Your task to perform on an android device: toggle improve location accuracy Image 0: 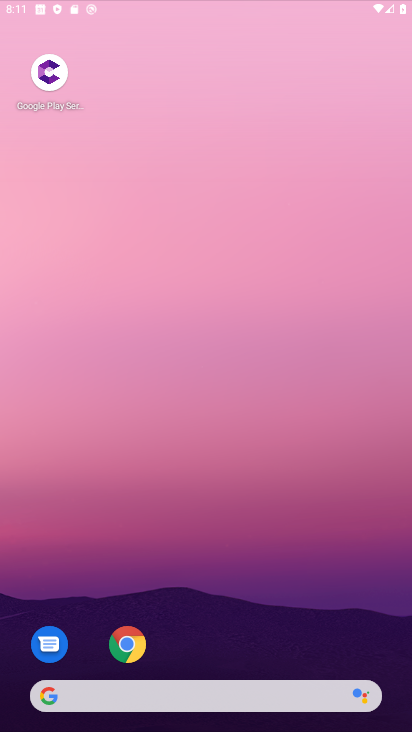
Step 0: drag from (303, 232) to (313, 148)
Your task to perform on an android device: toggle improve location accuracy Image 1: 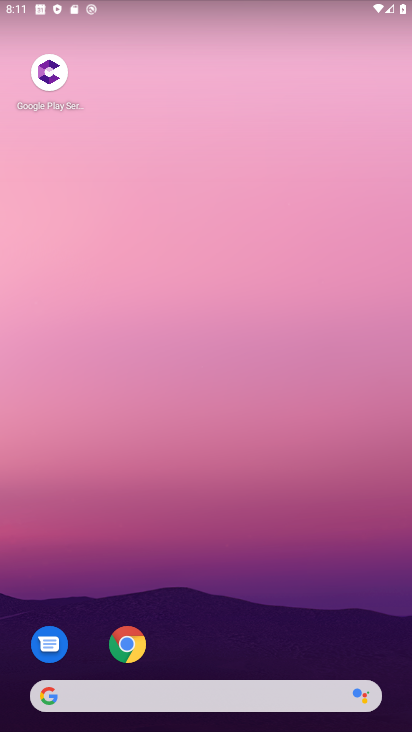
Step 1: drag from (189, 661) to (223, 127)
Your task to perform on an android device: toggle improve location accuracy Image 2: 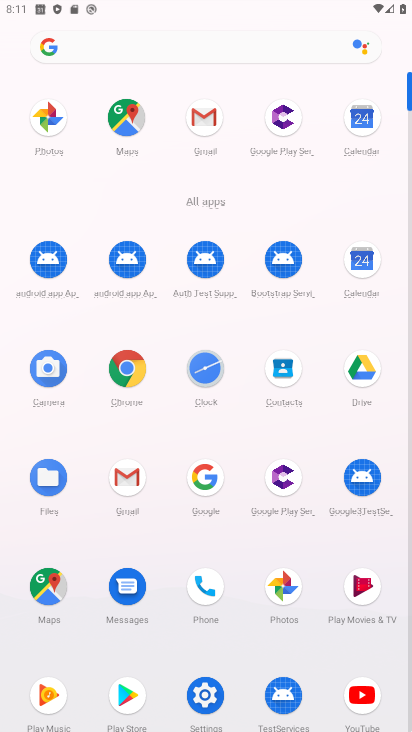
Step 2: click (205, 704)
Your task to perform on an android device: toggle improve location accuracy Image 3: 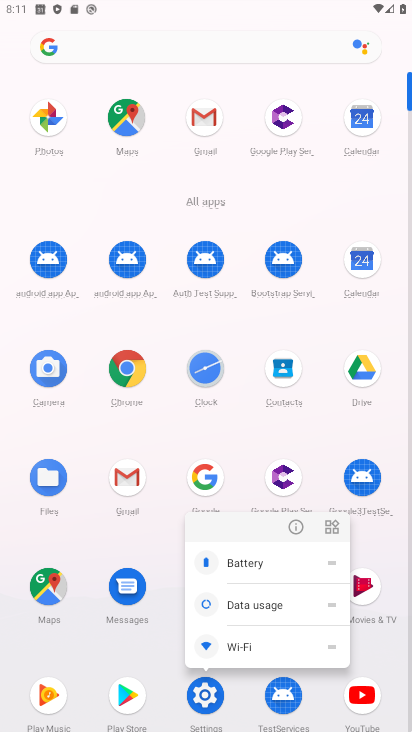
Step 3: click (291, 523)
Your task to perform on an android device: toggle improve location accuracy Image 4: 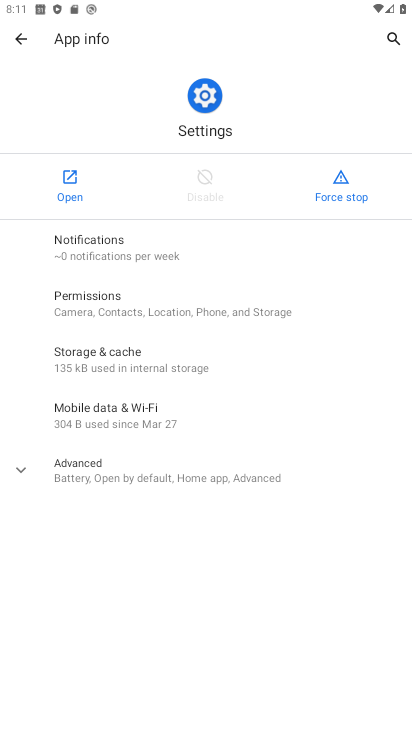
Step 4: click (68, 182)
Your task to perform on an android device: toggle improve location accuracy Image 5: 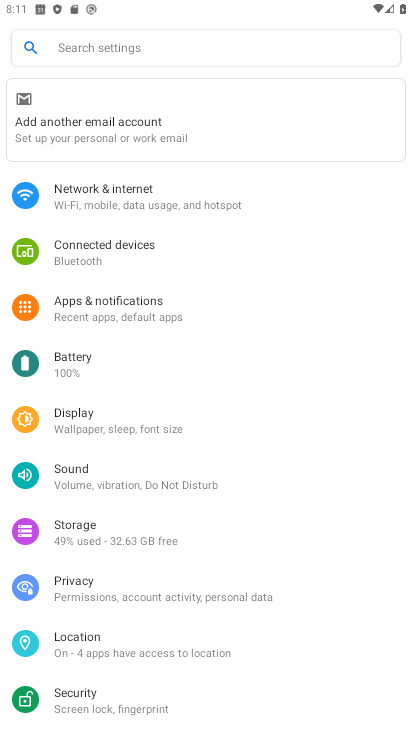
Step 5: click (99, 649)
Your task to perform on an android device: toggle improve location accuracy Image 6: 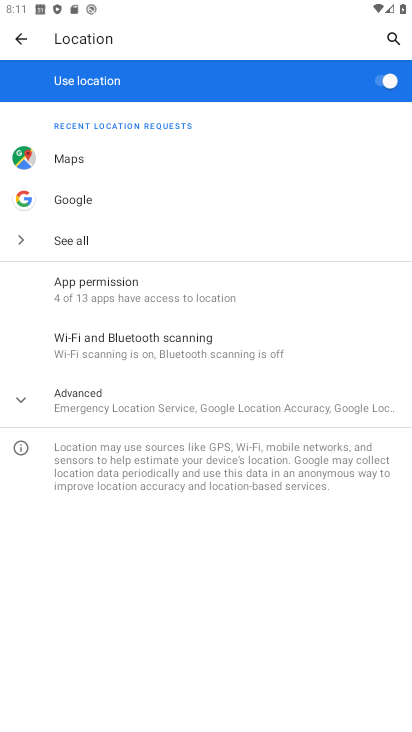
Step 6: click (142, 415)
Your task to perform on an android device: toggle improve location accuracy Image 7: 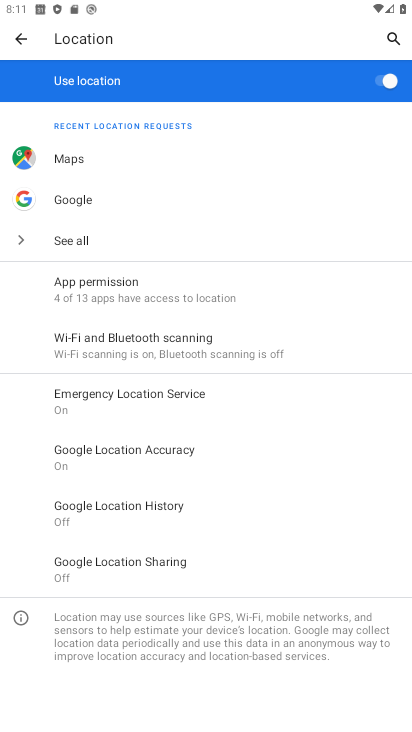
Step 7: click (199, 466)
Your task to perform on an android device: toggle improve location accuracy Image 8: 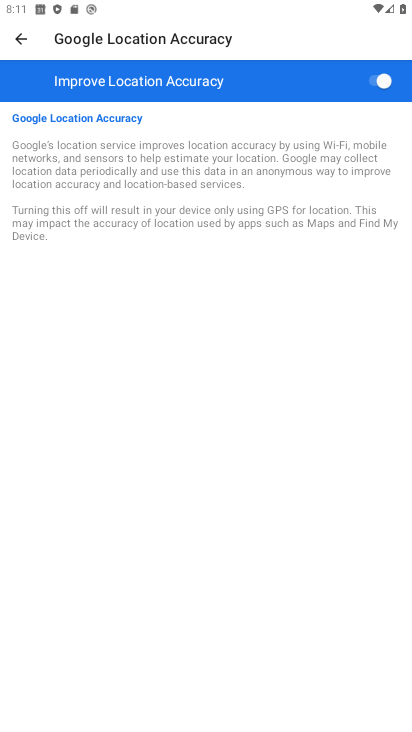
Step 8: click (381, 76)
Your task to perform on an android device: toggle improve location accuracy Image 9: 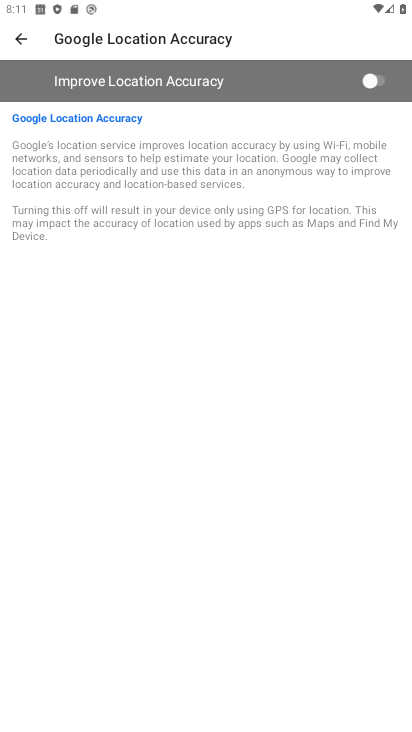
Step 9: task complete